Your task to perform on an android device: open app "Firefox Browser" Image 0: 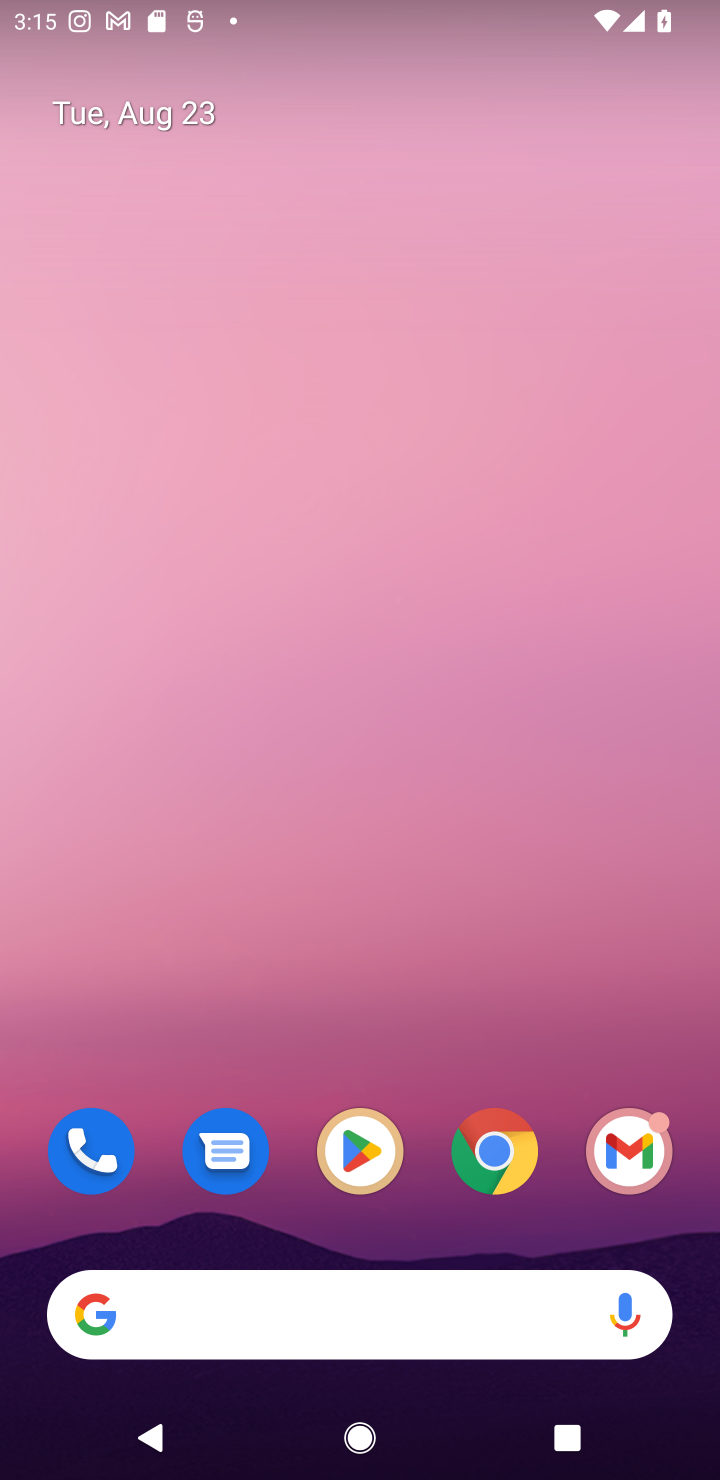
Step 0: press home button
Your task to perform on an android device: open app "Firefox Browser" Image 1: 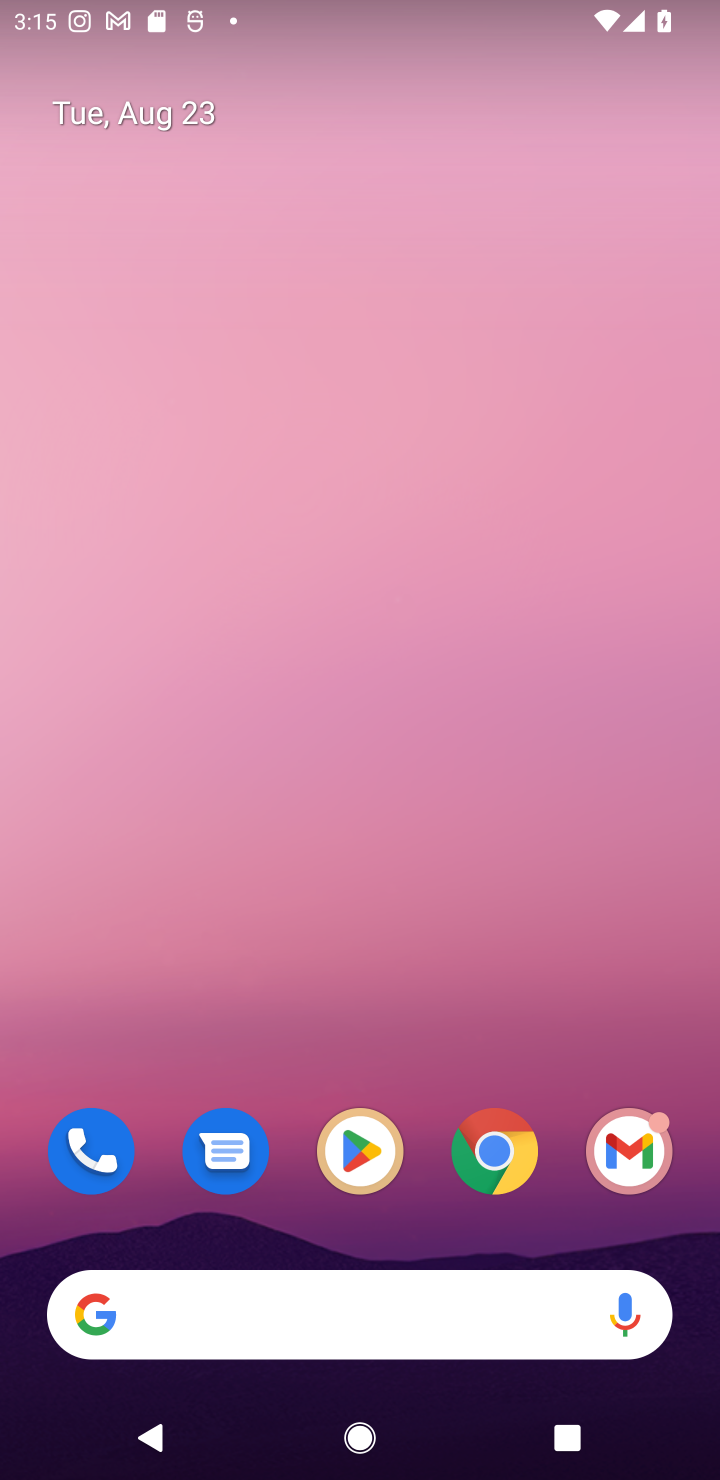
Step 1: click (367, 1158)
Your task to perform on an android device: open app "Firefox Browser" Image 2: 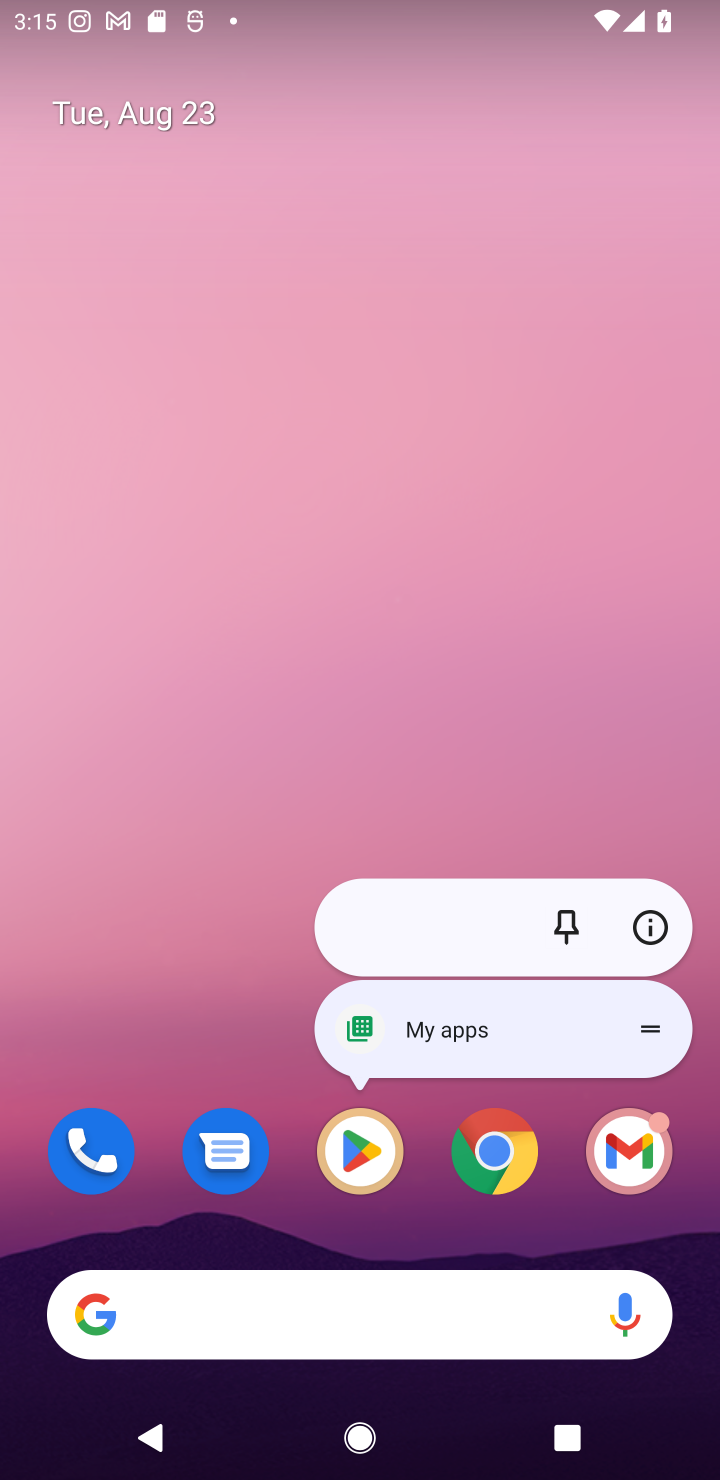
Step 2: click (373, 1146)
Your task to perform on an android device: open app "Firefox Browser" Image 3: 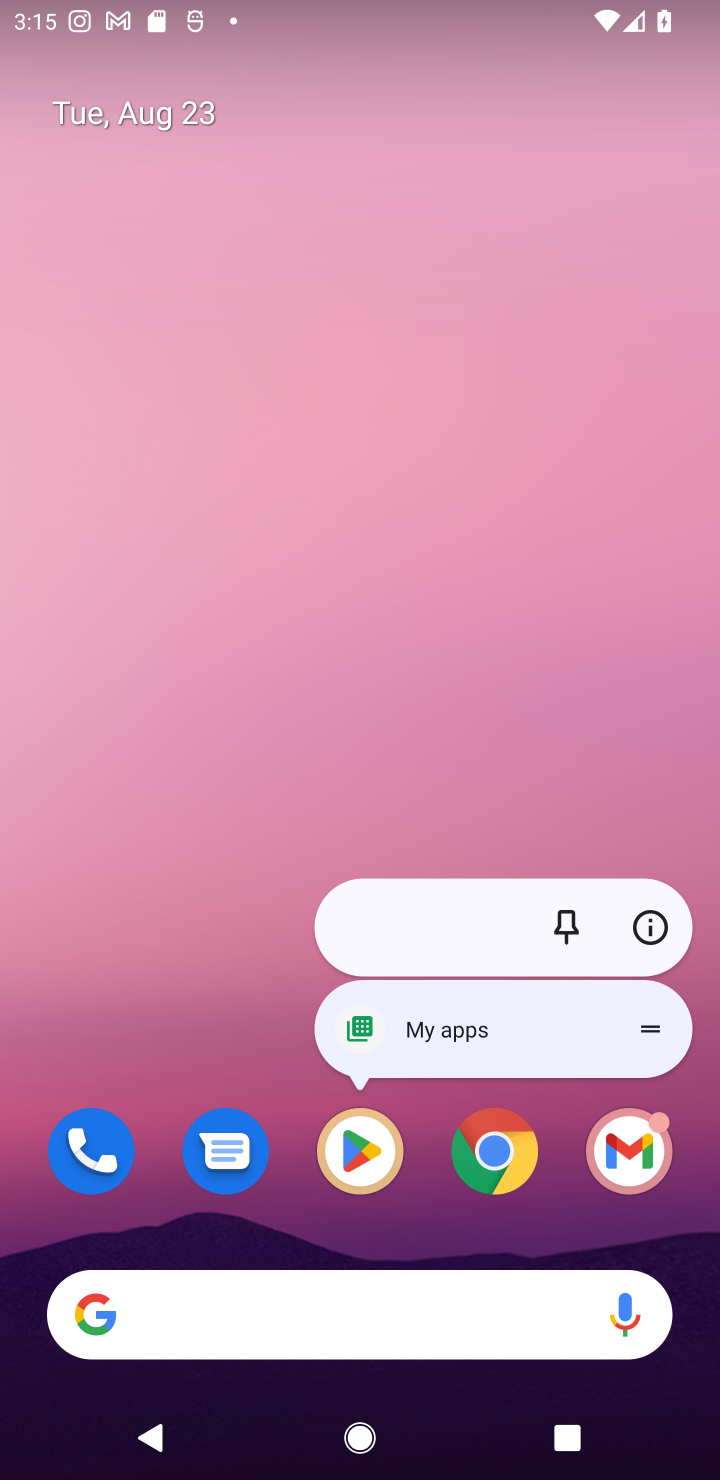
Step 3: click (355, 1163)
Your task to perform on an android device: open app "Firefox Browser" Image 4: 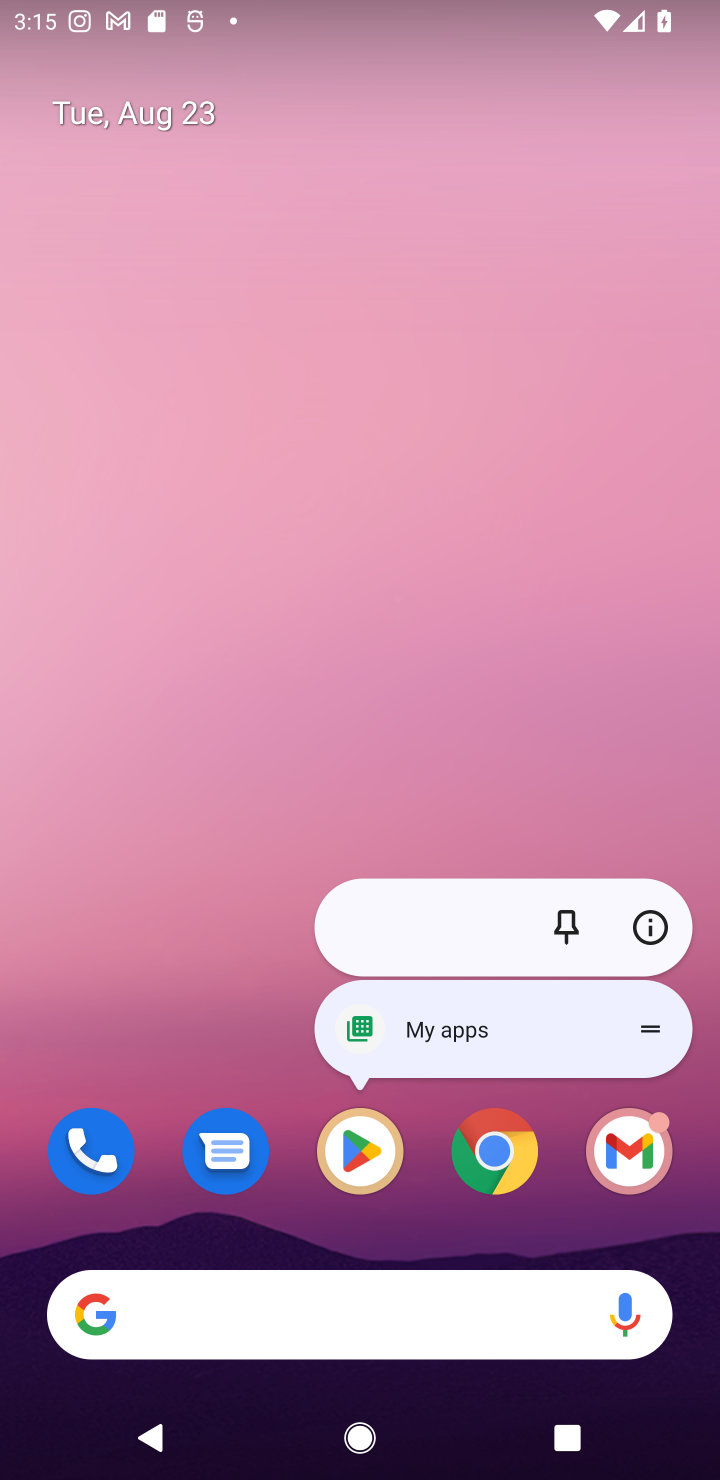
Step 4: click (355, 1163)
Your task to perform on an android device: open app "Firefox Browser" Image 5: 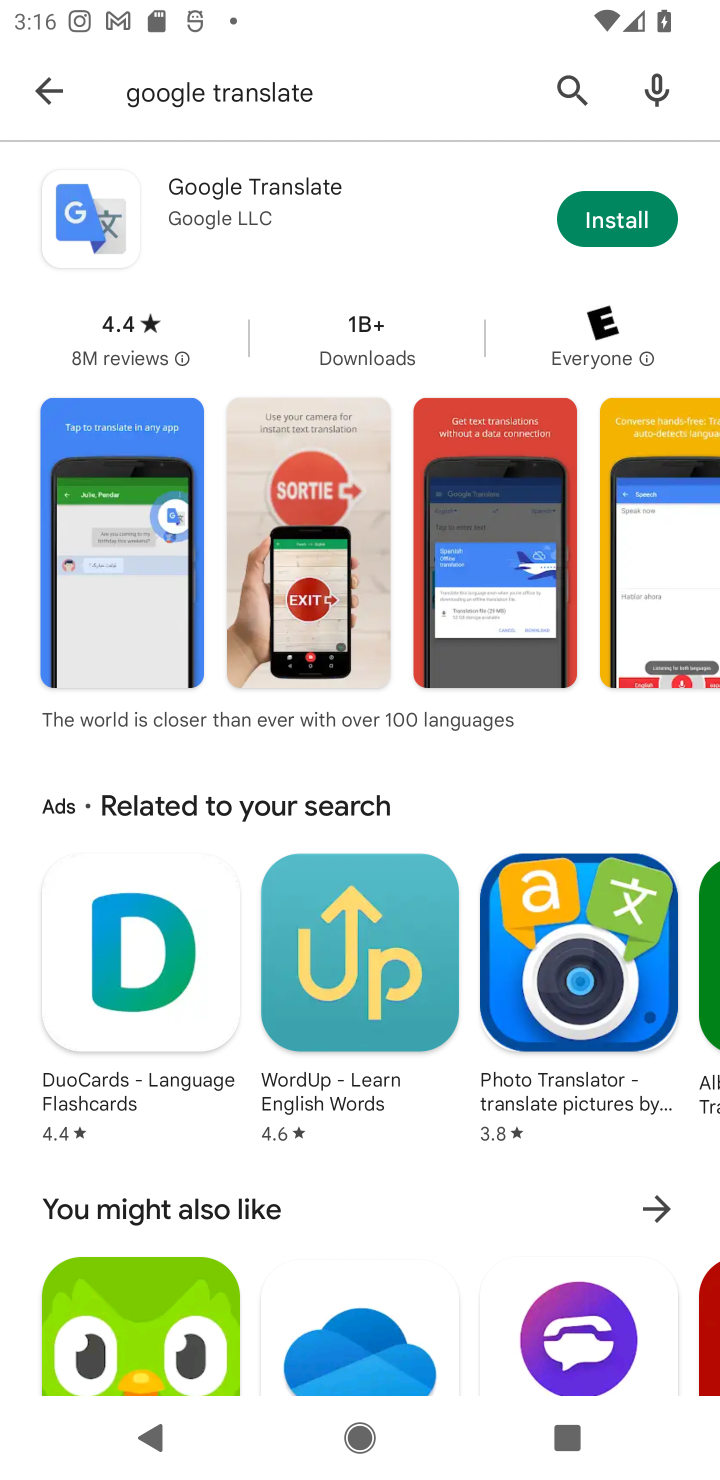
Step 5: click (570, 91)
Your task to perform on an android device: open app "Firefox Browser" Image 6: 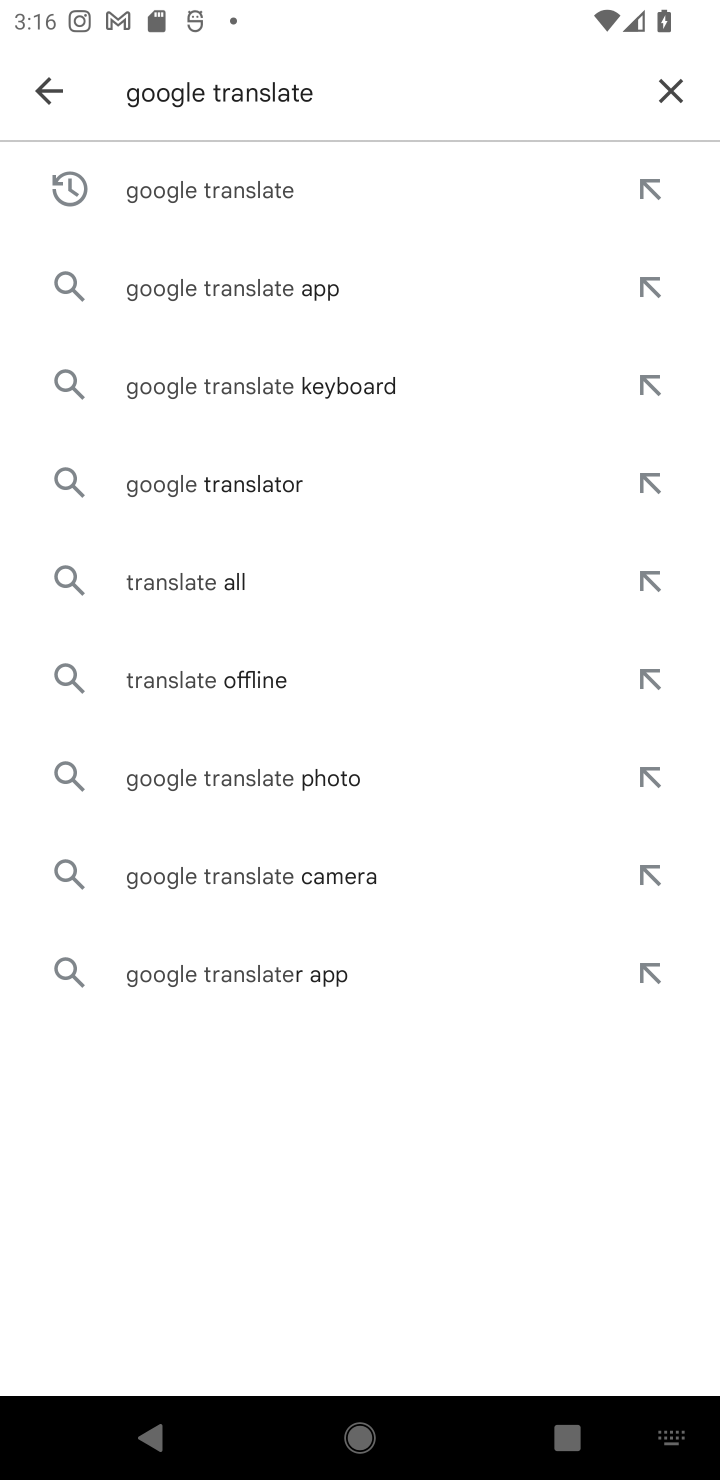
Step 6: click (671, 86)
Your task to perform on an android device: open app "Firefox Browser" Image 7: 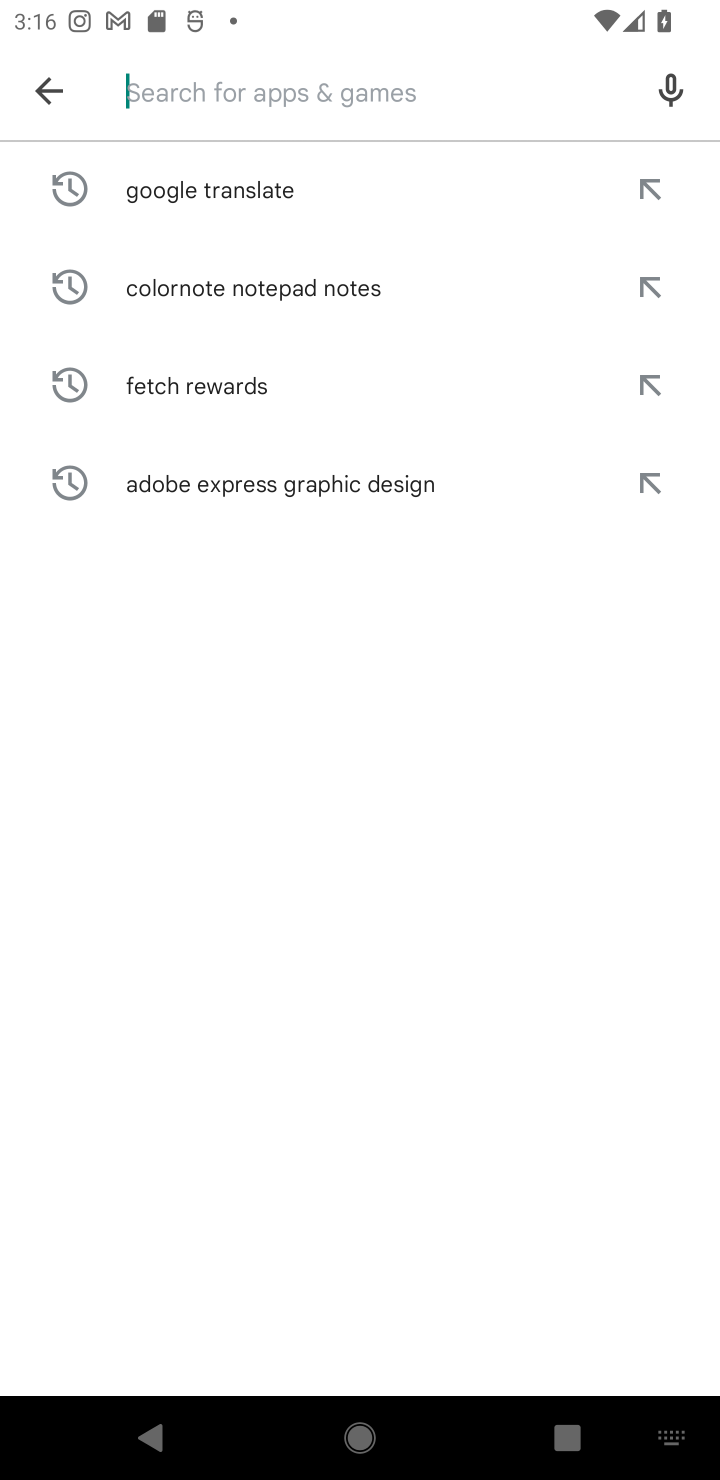
Step 7: type "Firefox Browser"
Your task to perform on an android device: open app "Firefox Browser" Image 8: 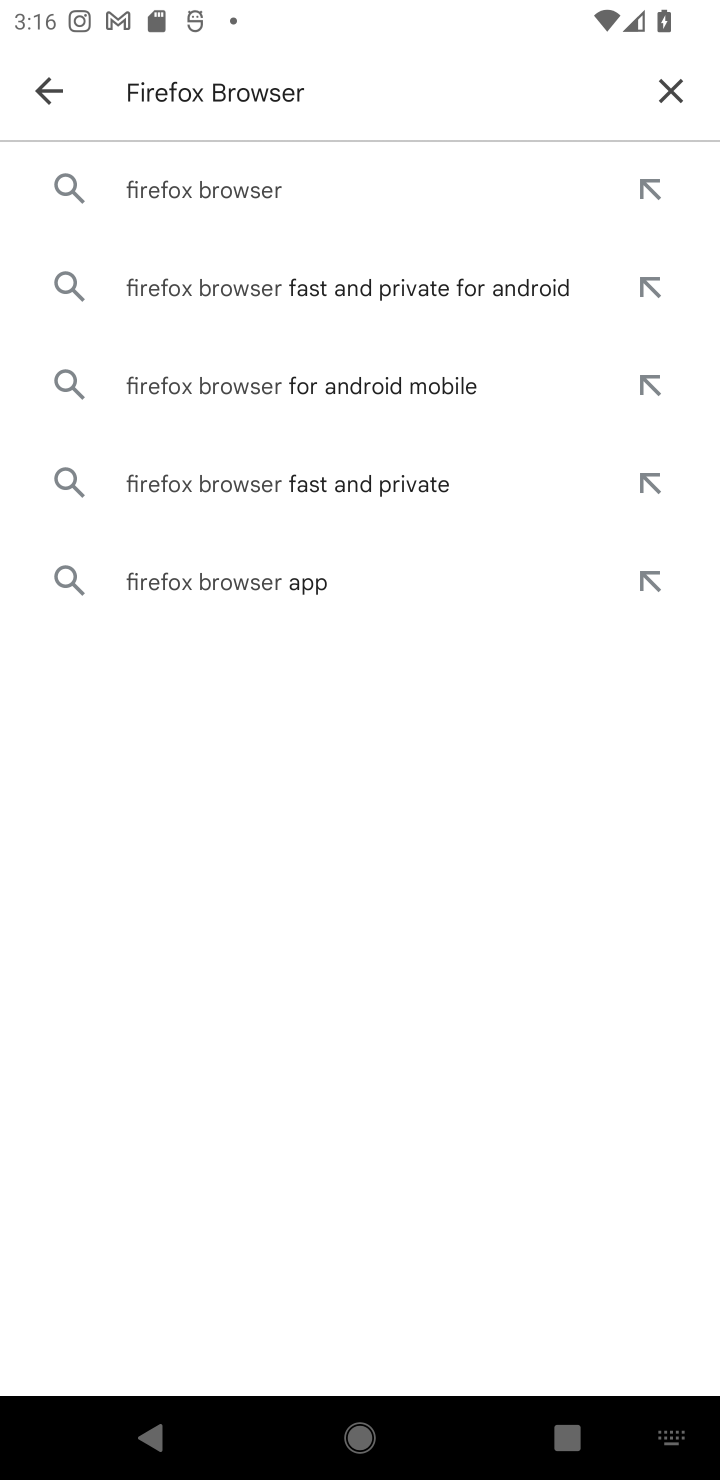
Step 8: click (268, 182)
Your task to perform on an android device: open app "Firefox Browser" Image 9: 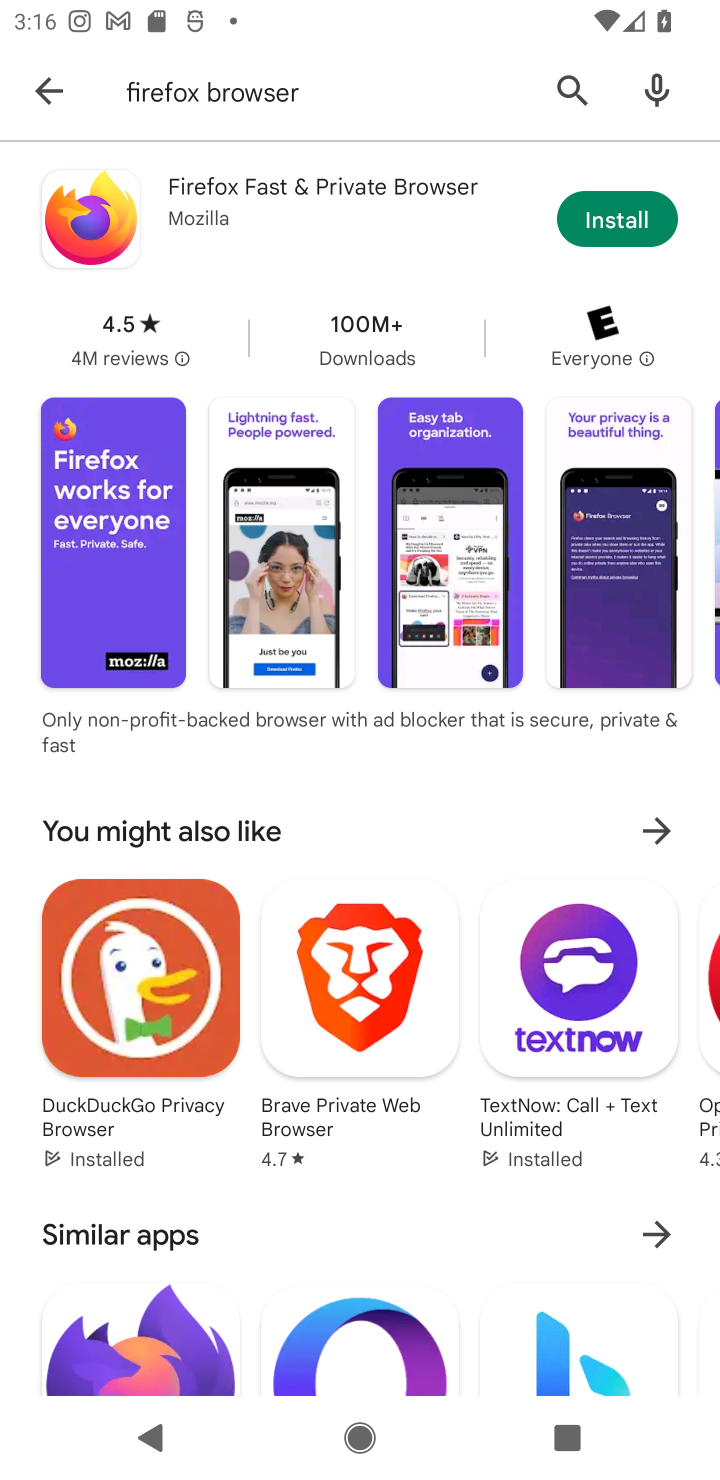
Step 9: task complete